Your task to perform on an android device: find which apps use the phone's location Image 0: 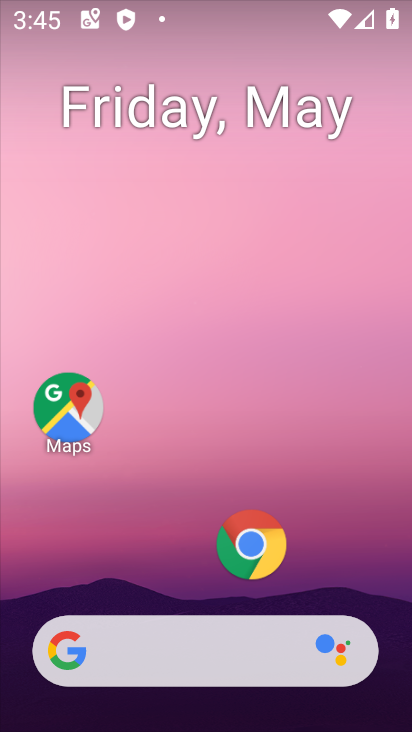
Step 0: drag from (206, 595) to (245, 186)
Your task to perform on an android device: find which apps use the phone's location Image 1: 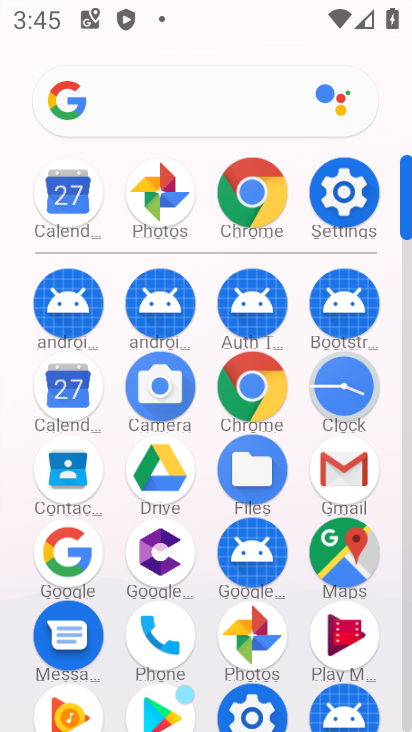
Step 1: click (324, 218)
Your task to perform on an android device: find which apps use the phone's location Image 2: 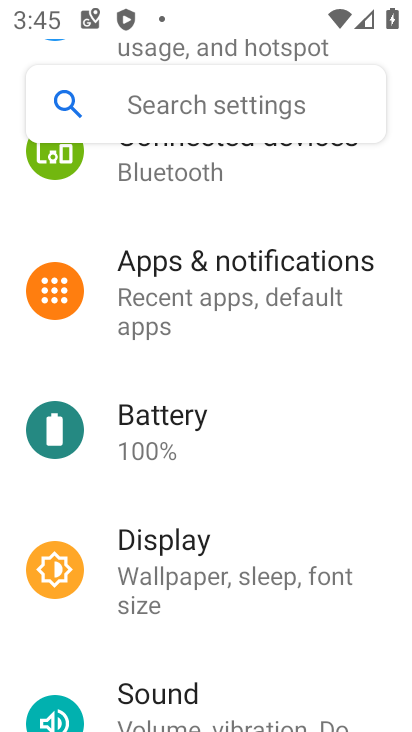
Step 2: drag from (230, 653) to (233, 322)
Your task to perform on an android device: find which apps use the phone's location Image 3: 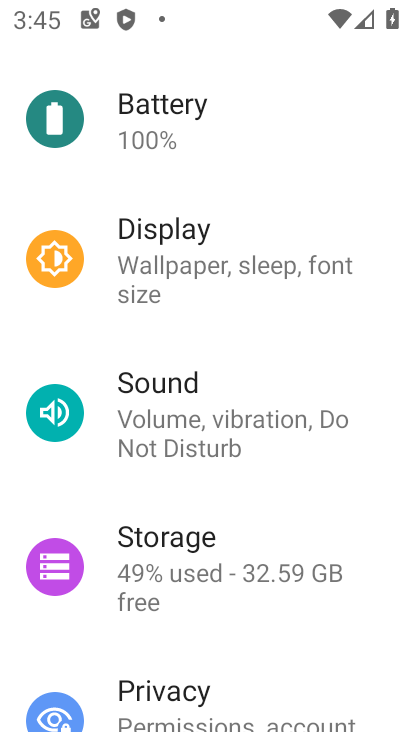
Step 3: drag from (183, 664) to (224, 342)
Your task to perform on an android device: find which apps use the phone's location Image 4: 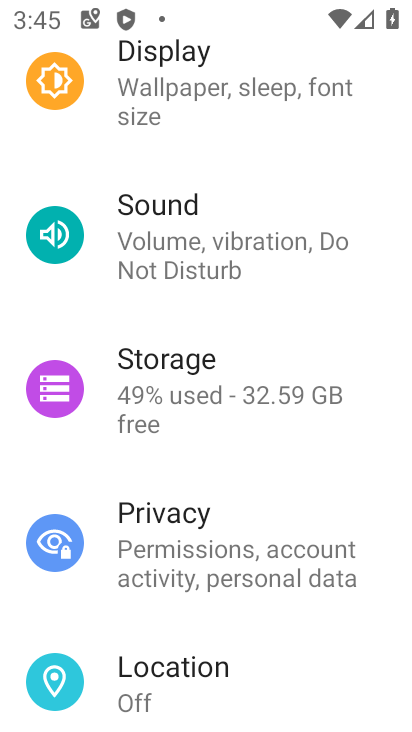
Step 4: click (199, 653)
Your task to perform on an android device: find which apps use the phone's location Image 5: 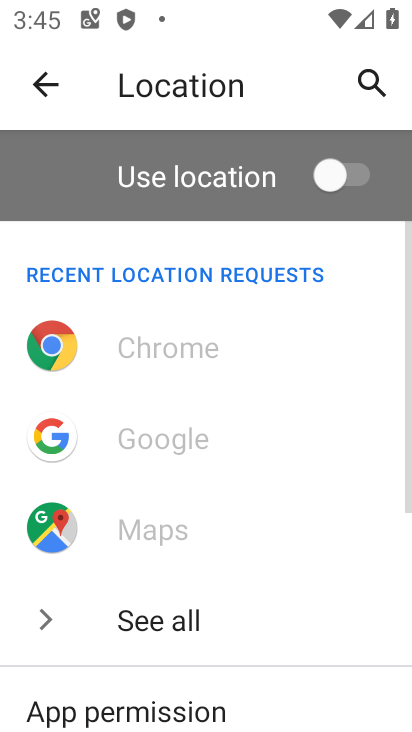
Step 5: drag from (209, 670) to (240, 407)
Your task to perform on an android device: find which apps use the phone's location Image 6: 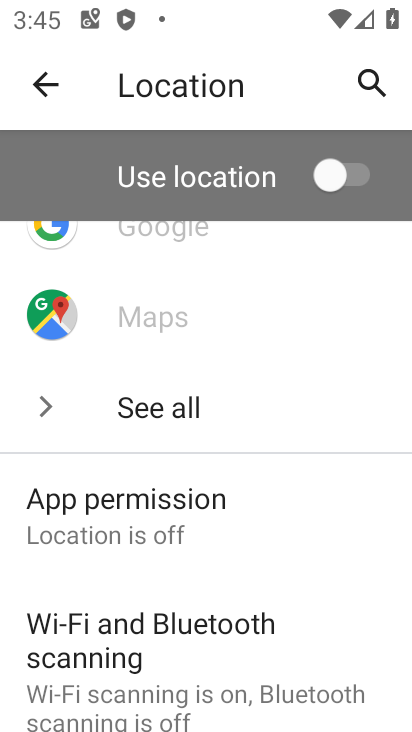
Step 6: click (231, 496)
Your task to perform on an android device: find which apps use the phone's location Image 7: 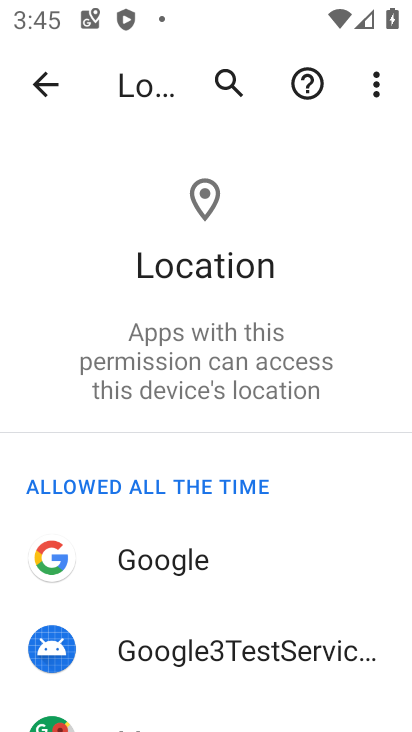
Step 7: task complete